Your task to perform on an android device: Open calendar and show me the second week of next month Image 0: 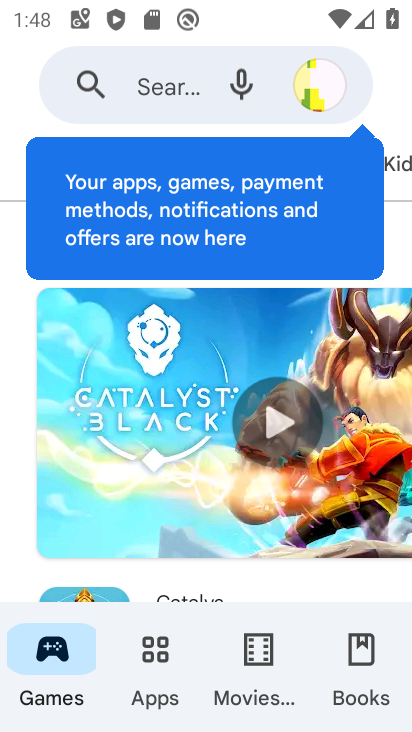
Step 0: press home button
Your task to perform on an android device: Open calendar and show me the second week of next month Image 1: 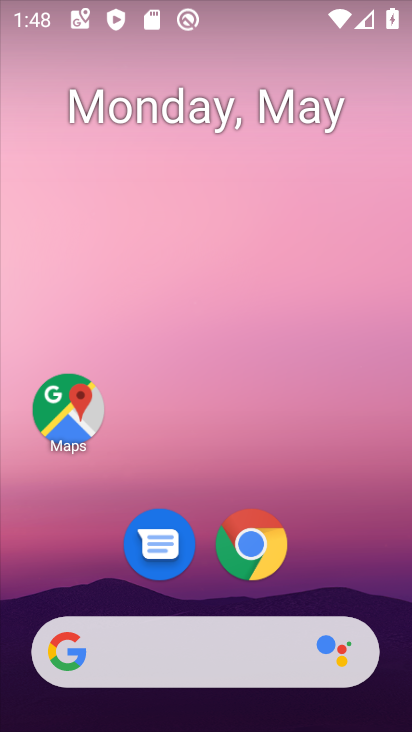
Step 1: drag from (367, 585) to (365, 183)
Your task to perform on an android device: Open calendar and show me the second week of next month Image 2: 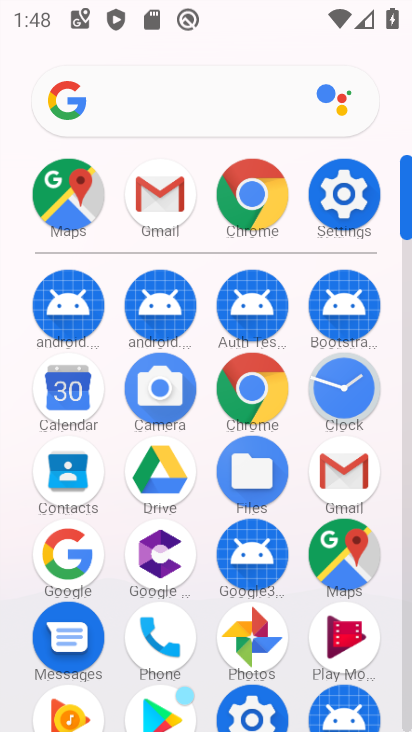
Step 2: click (46, 397)
Your task to perform on an android device: Open calendar and show me the second week of next month Image 3: 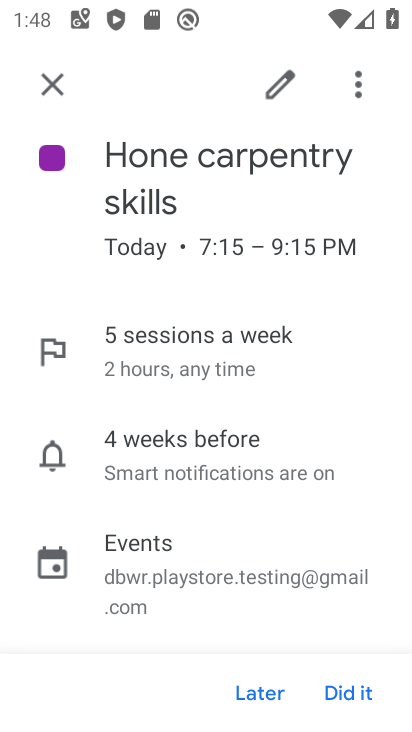
Step 3: click (61, 83)
Your task to perform on an android device: Open calendar and show me the second week of next month Image 4: 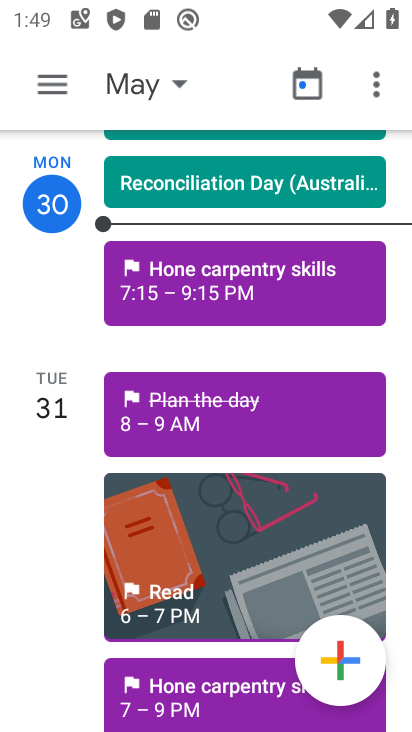
Step 4: click (172, 87)
Your task to perform on an android device: Open calendar and show me the second week of next month Image 5: 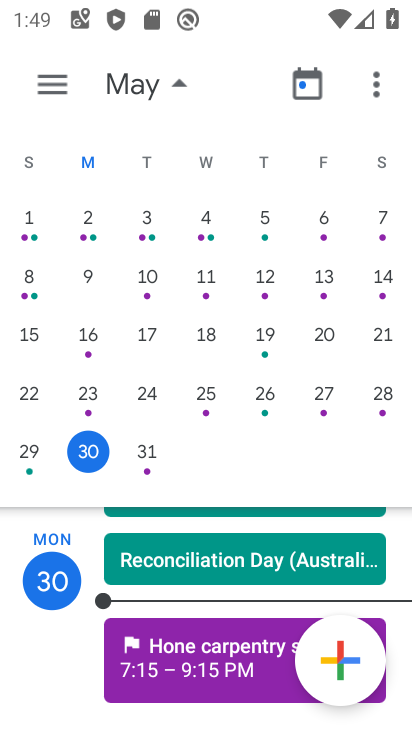
Step 5: drag from (387, 191) to (29, 184)
Your task to perform on an android device: Open calendar and show me the second week of next month Image 6: 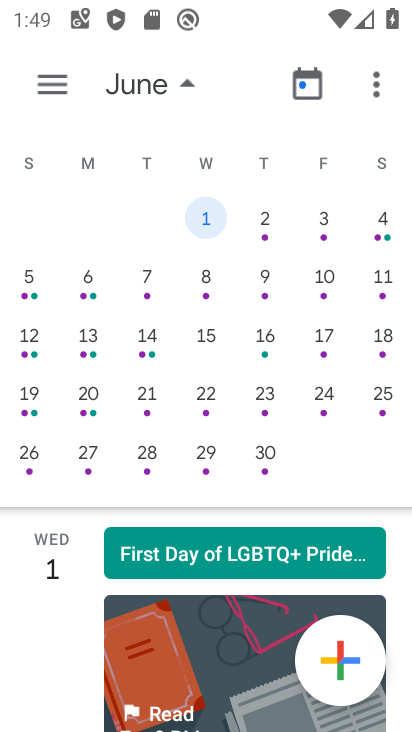
Step 6: click (81, 285)
Your task to perform on an android device: Open calendar and show me the second week of next month Image 7: 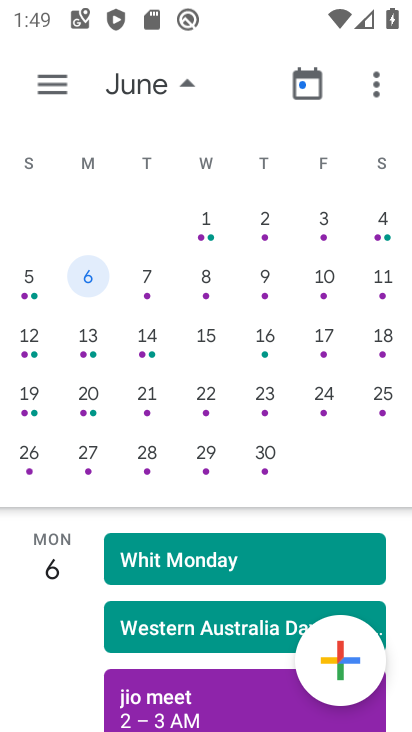
Step 7: task complete